Your task to perform on an android device: open app "NewsBreak: Local News & Alerts" (install if not already installed) Image 0: 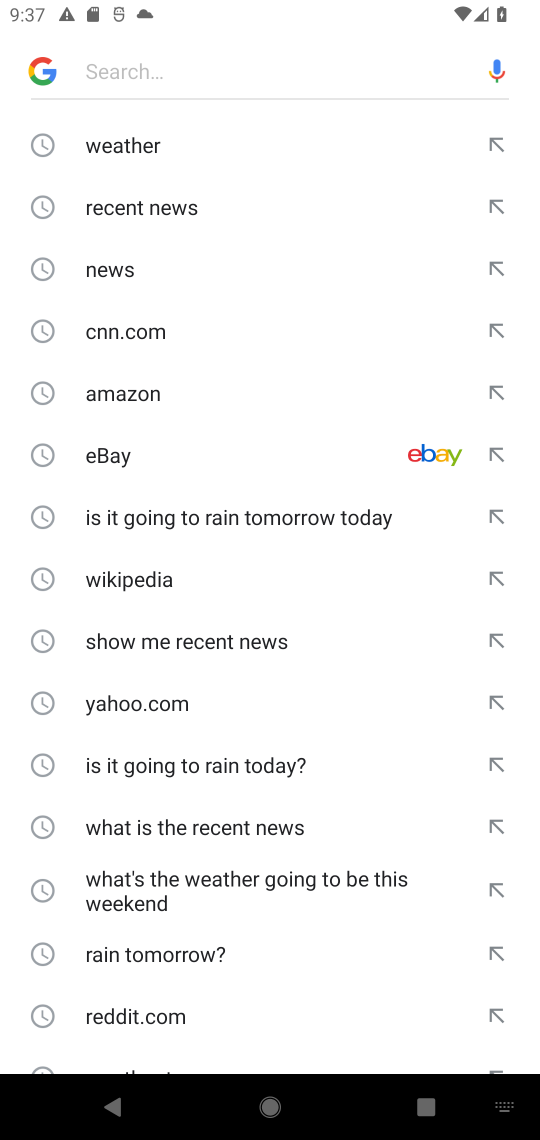
Step 0: press home button
Your task to perform on an android device: open app "NewsBreak: Local News & Alerts" (install if not already installed) Image 1: 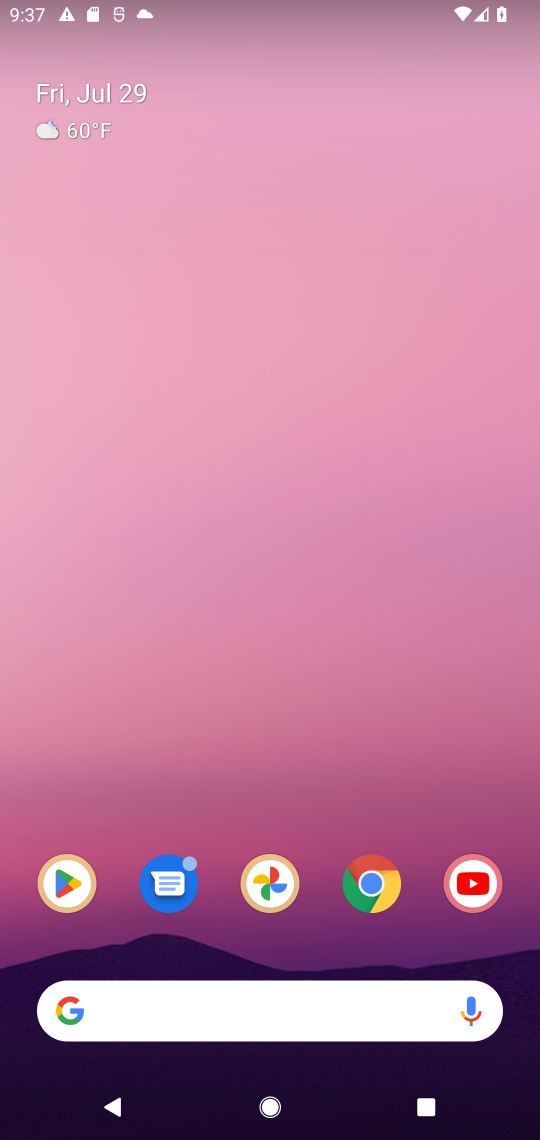
Step 1: click (61, 875)
Your task to perform on an android device: open app "NewsBreak: Local News & Alerts" (install if not already installed) Image 2: 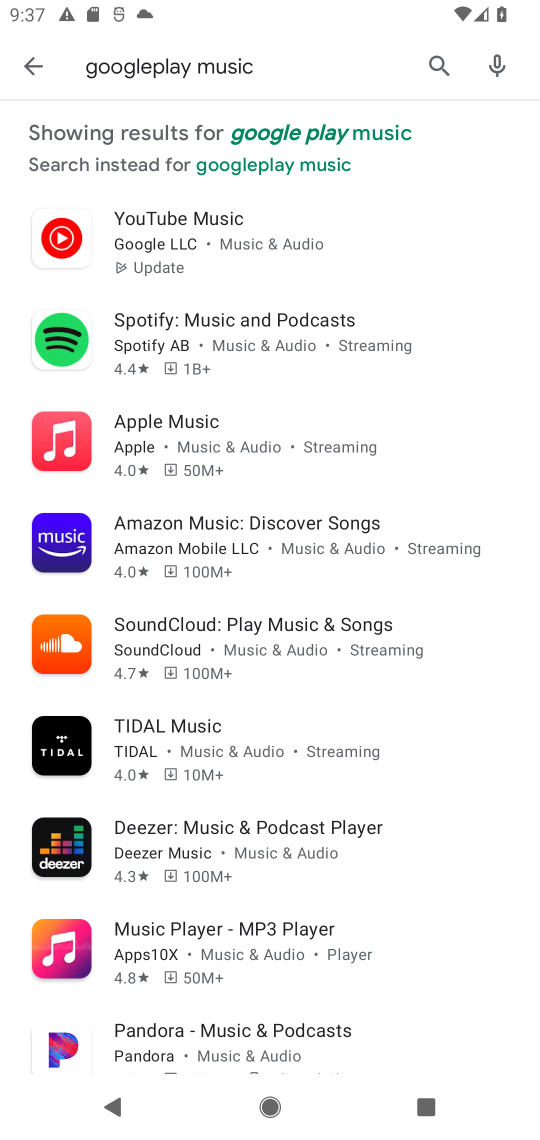
Step 2: click (205, 61)
Your task to perform on an android device: open app "NewsBreak: Local News & Alerts" (install if not already installed) Image 3: 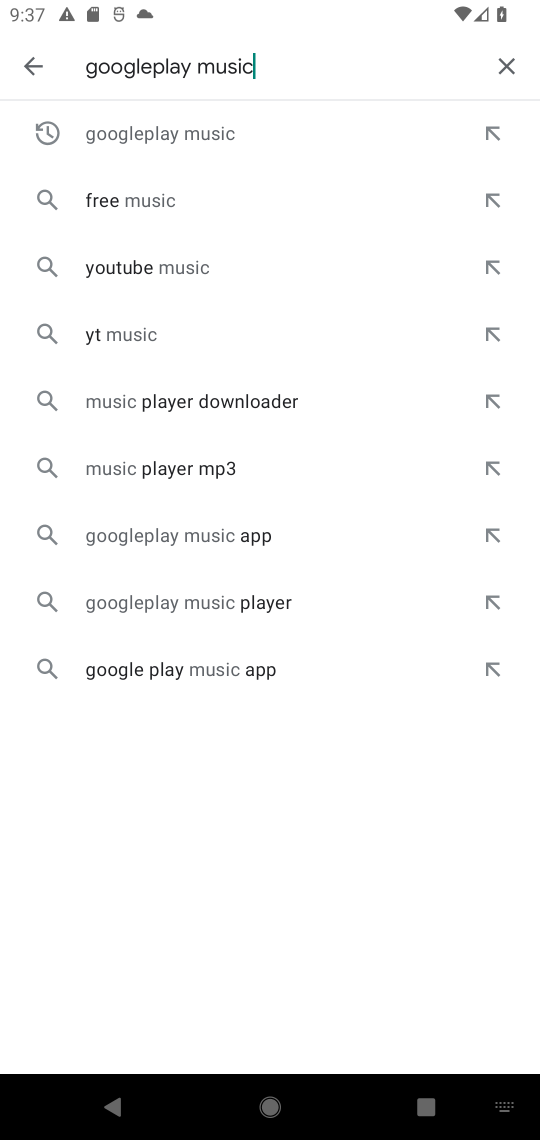
Step 3: click (498, 59)
Your task to perform on an android device: open app "NewsBreak: Local News & Alerts" (install if not already installed) Image 4: 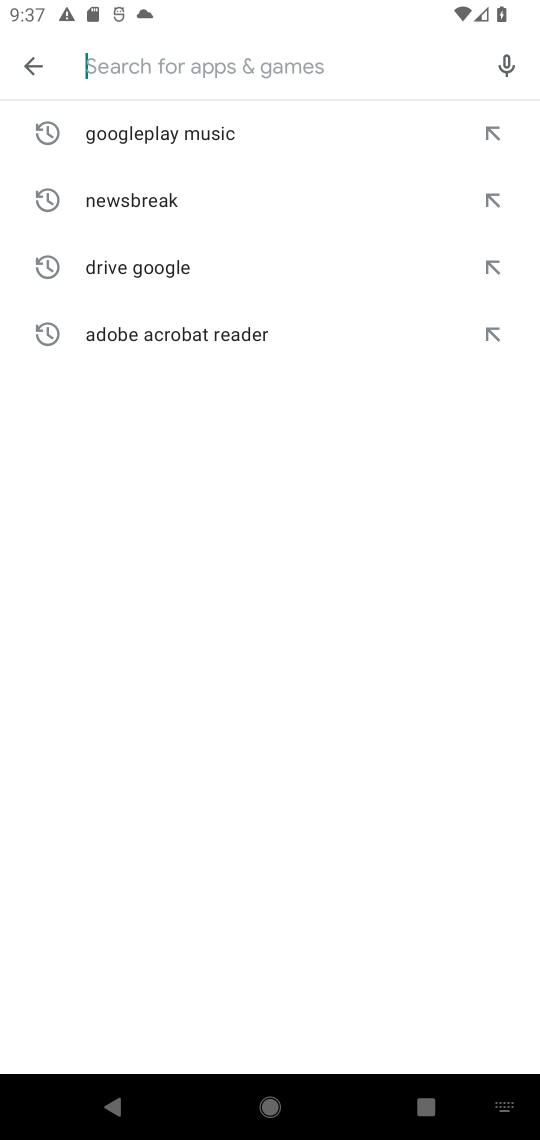
Step 4: type "news break"
Your task to perform on an android device: open app "NewsBreak: Local News & Alerts" (install if not already installed) Image 5: 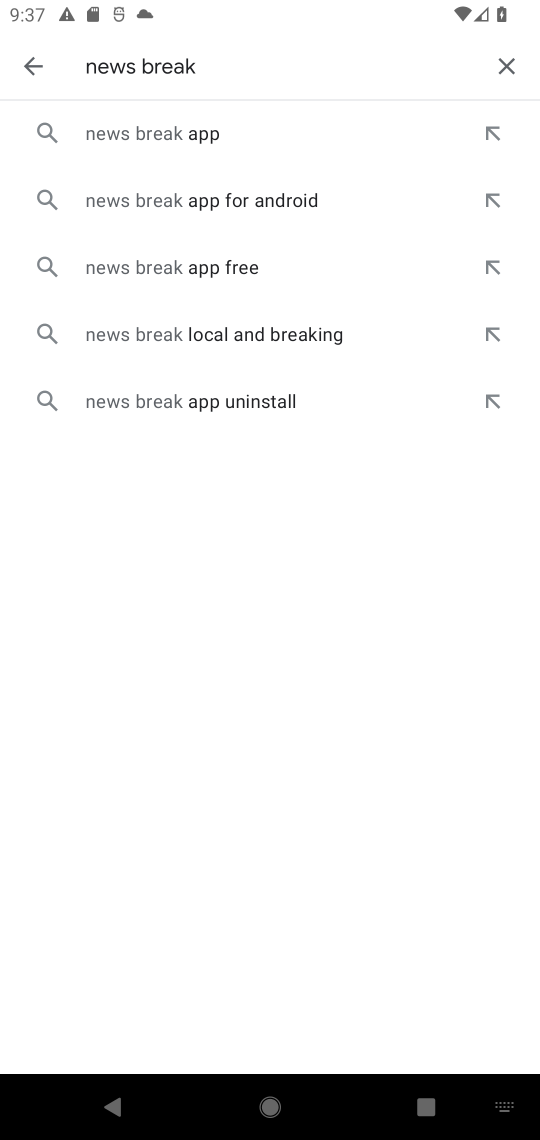
Step 5: click (196, 136)
Your task to perform on an android device: open app "NewsBreak: Local News & Alerts" (install if not already installed) Image 6: 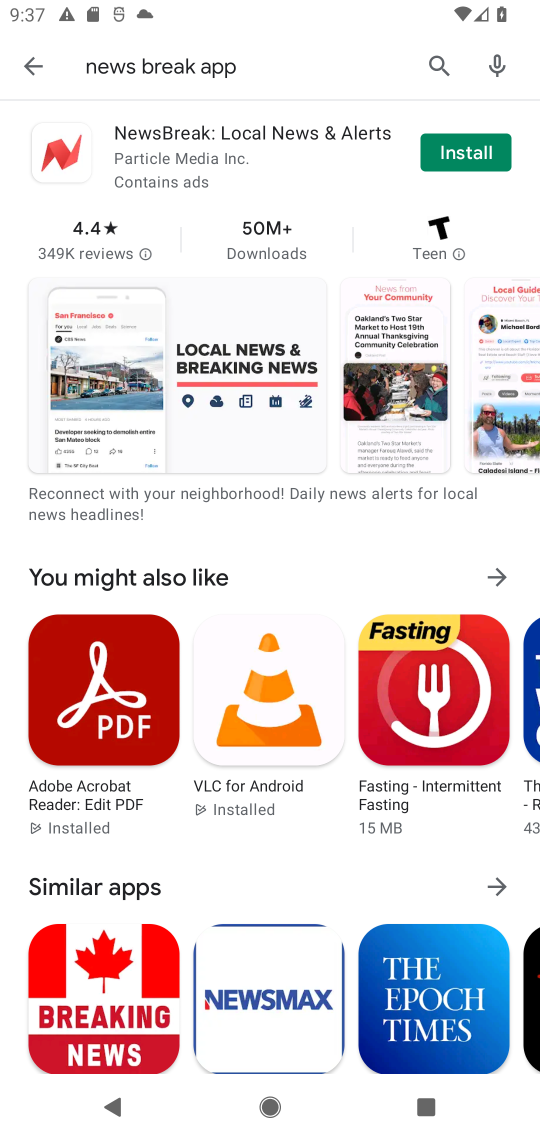
Step 6: click (482, 156)
Your task to perform on an android device: open app "NewsBreak: Local News & Alerts" (install if not already installed) Image 7: 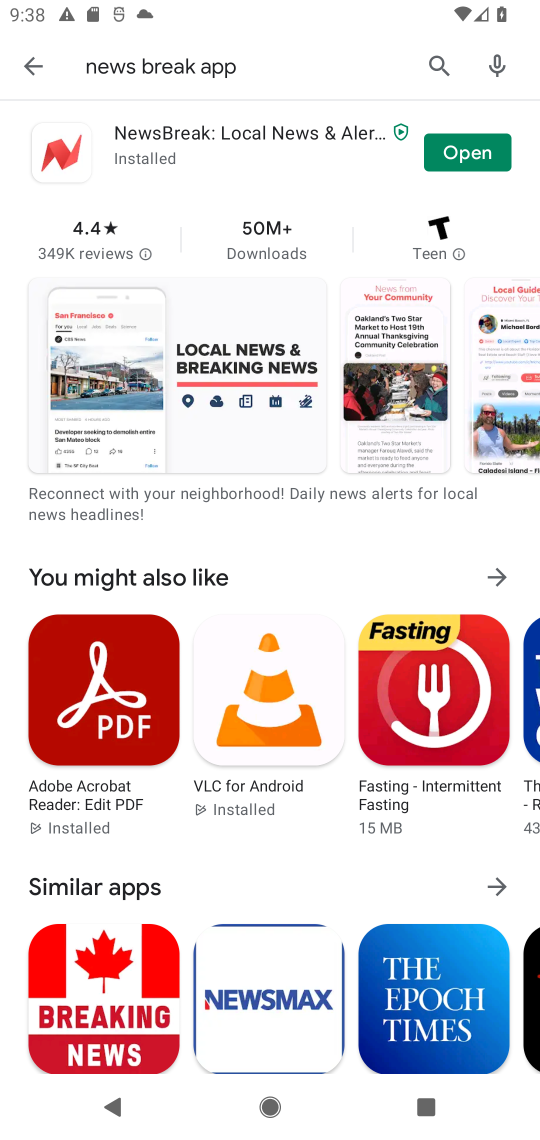
Step 7: click (468, 147)
Your task to perform on an android device: open app "NewsBreak: Local News & Alerts" (install if not already installed) Image 8: 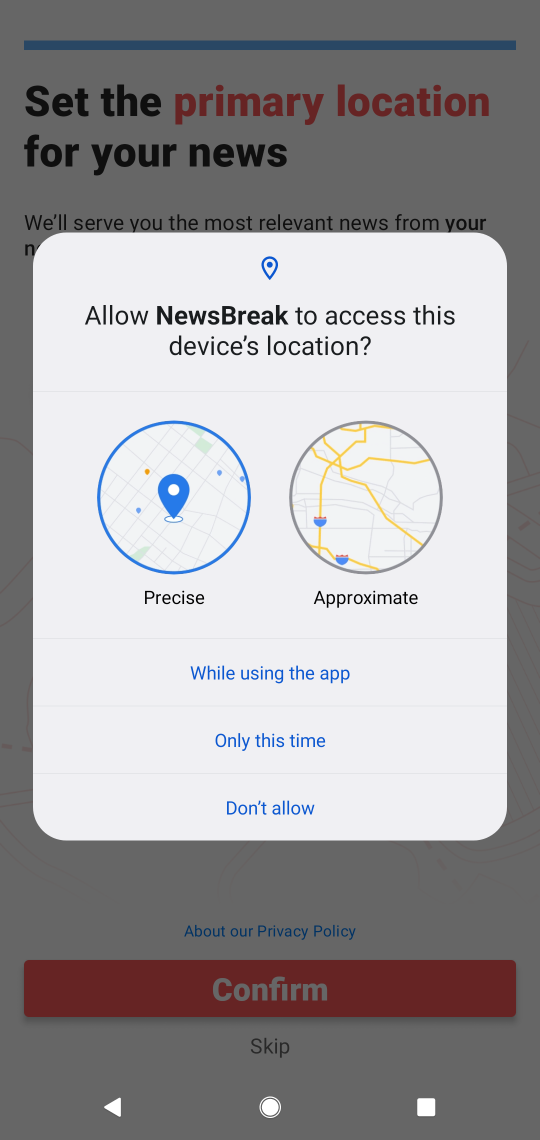
Step 8: click (278, 671)
Your task to perform on an android device: open app "NewsBreak: Local News & Alerts" (install if not already installed) Image 9: 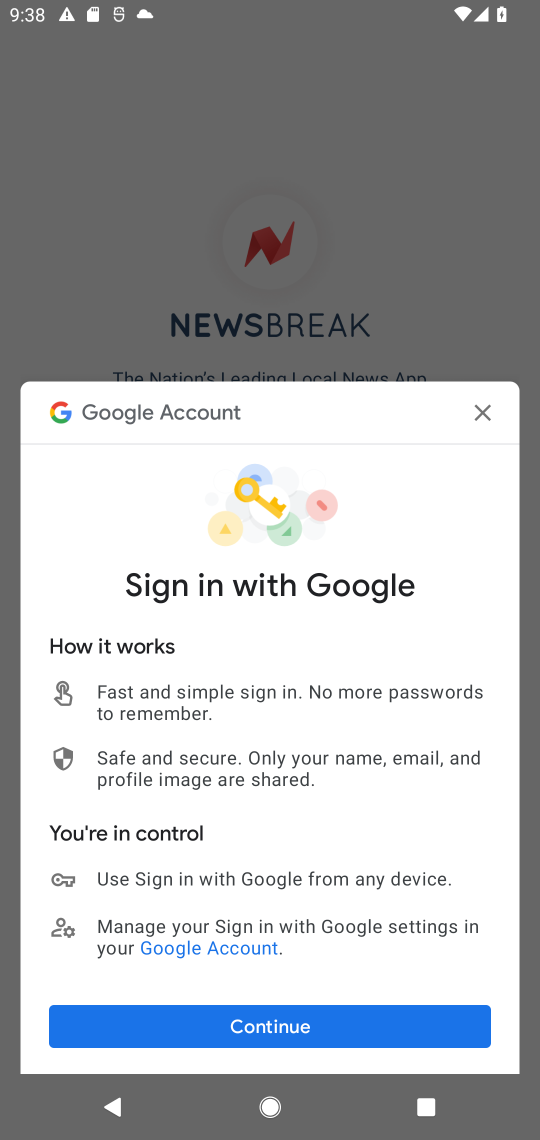
Step 9: click (260, 1046)
Your task to perform on an android device: open app "NewsBreak: Local News & Alerts" (install if not already installed) Image 10: 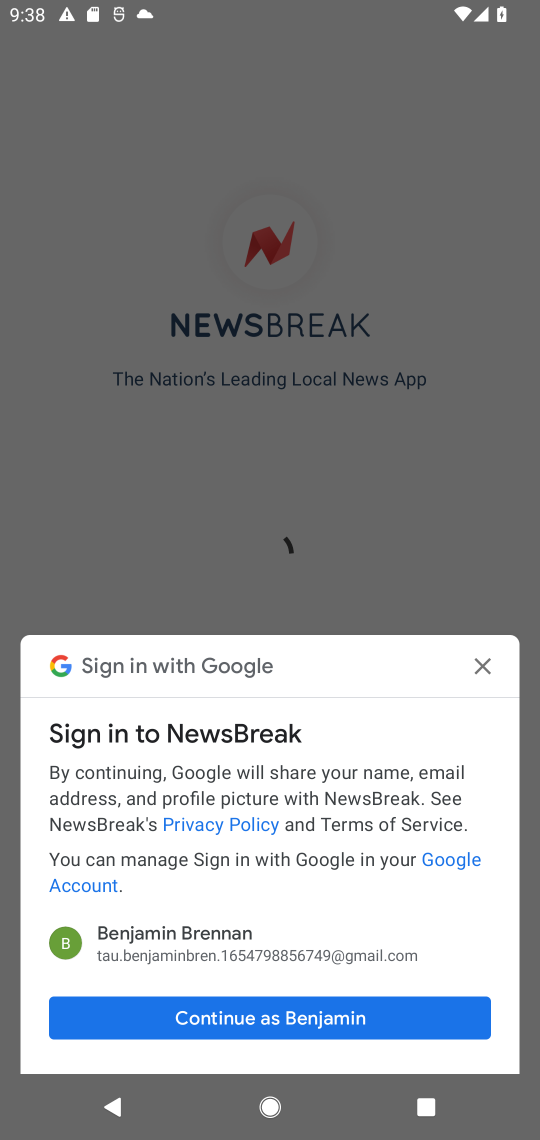
Step 10: click (314, 1033)
Your task to perform on an android device: open app "NewsBreak: Local News & Alerts" (install if not already installed) Image 11: 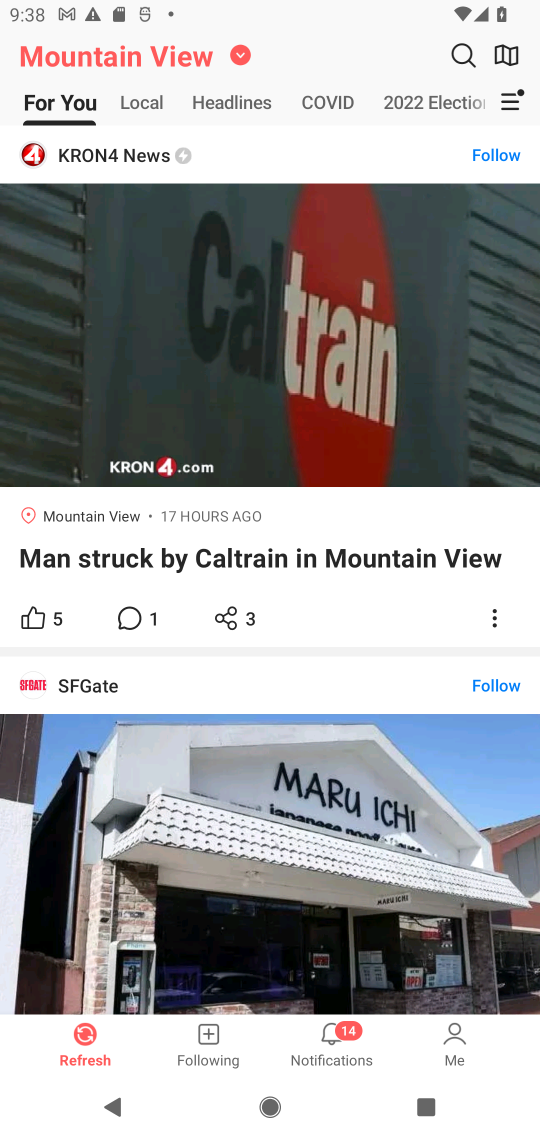
Step 11: task complete